Your task to perform on an android device: Open Youtube and go to the subscriptions tab Image 0: 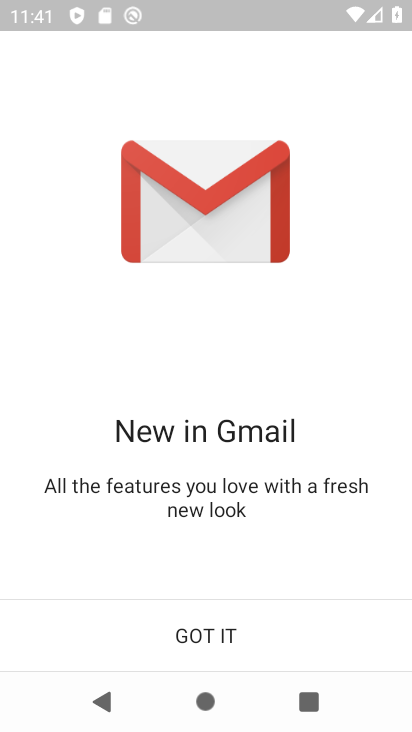
Step 0: press home button
Your task to perform on an android device: Open Youtube and go to the subscriptions tab Image 1: 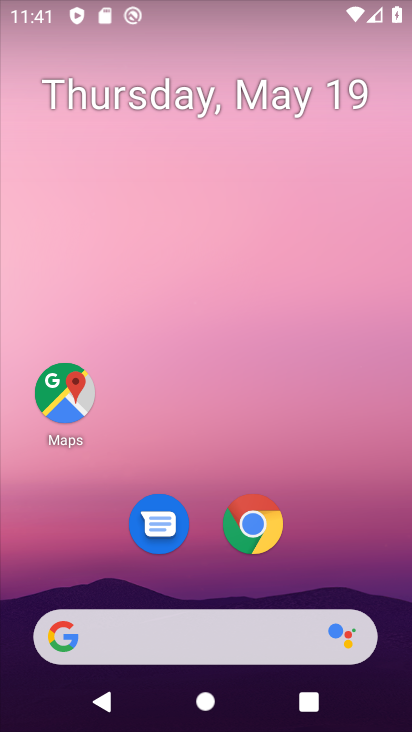
Step 1: drag from (229, 452) to (211, 11)
Your task to perform on an android device: Open Youtube and go to the subscriptions tab Image 2: 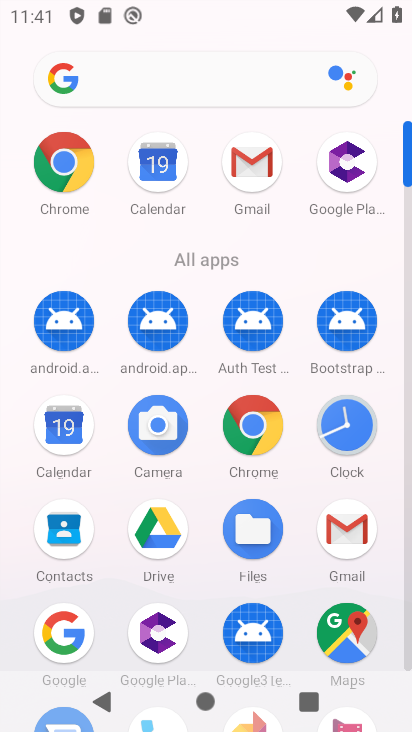
Step 2: drag from (208, 553) to (201, 253)
Your task to perform on an android device: Open Youtube and go to the subscriptions tab Image 3: 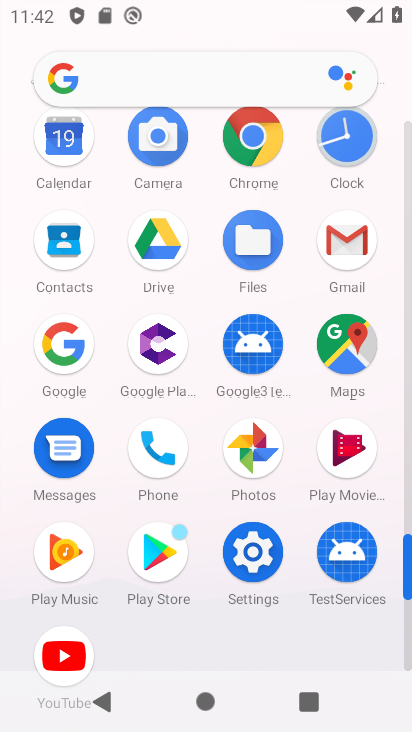
Step 3: click (64, 640)
Your task to perform on an android device: Open Youtube and go to the subscriptions tab Image 4: 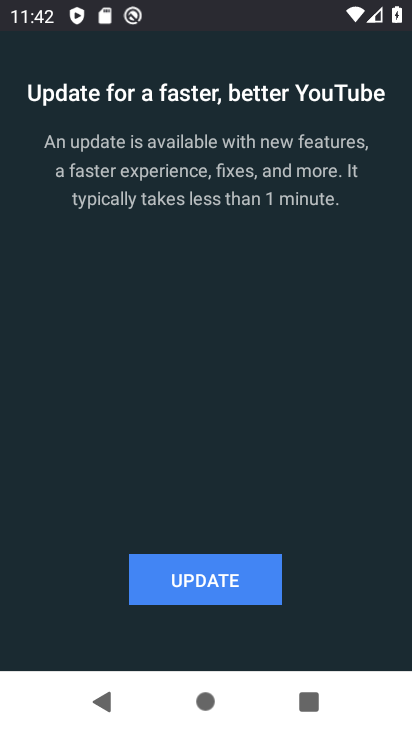
Step 4: click (200, 581)
Your task to perform on an android device: Open Youtube and go to the subscriptions tab Image 5: 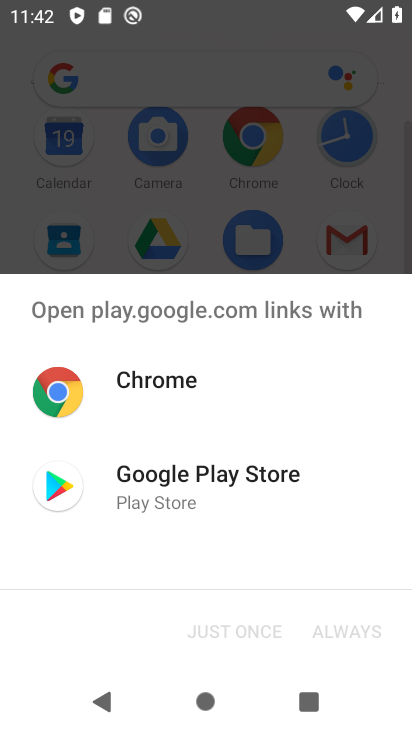
Step 5: click (144, 465)
Your task to perform on an android device: Open Youtube and go to the subscriptions tab Image 6: 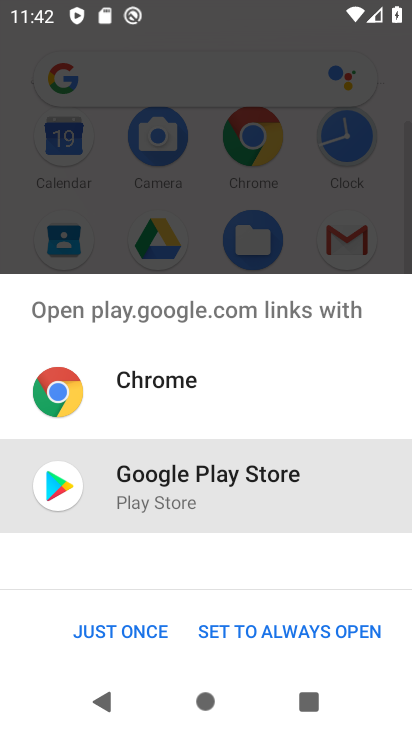
Step 6: click (131, 633)
Your task to perform on an android device: Open Youtube and go to the subscriptions tab Image 7: 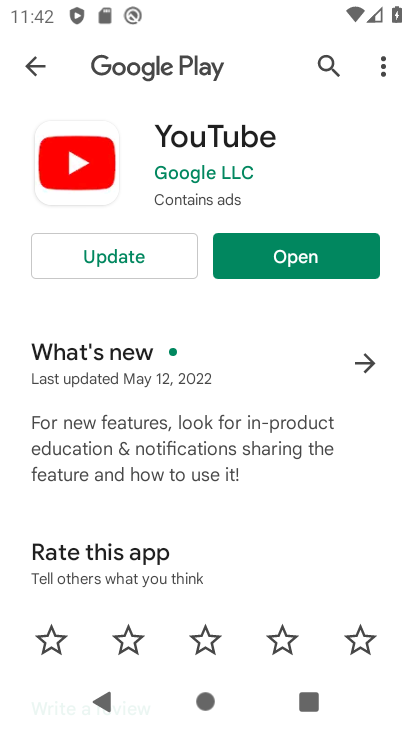
Step 7: click (131, 245)
Your task to perform on an android device: Open Youtube and go to the subscriptions tab Image 8: 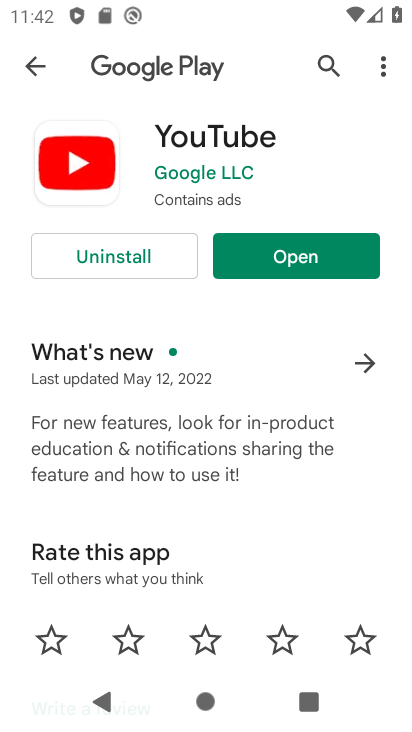
Step 8: click (308, 253)
Your task to perform on an android device: Open Youtube and go to the subscriptions tab Image 9: 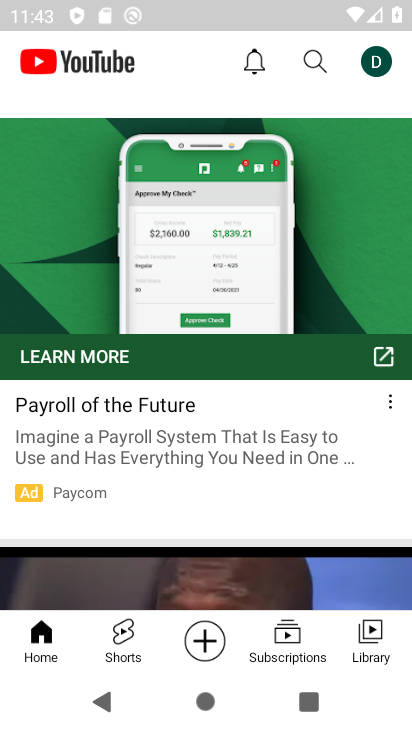
Step 9: click (299, 633)
Your task to perform on an android device: Open Youtube and go to the subscriptions tab Image 10: 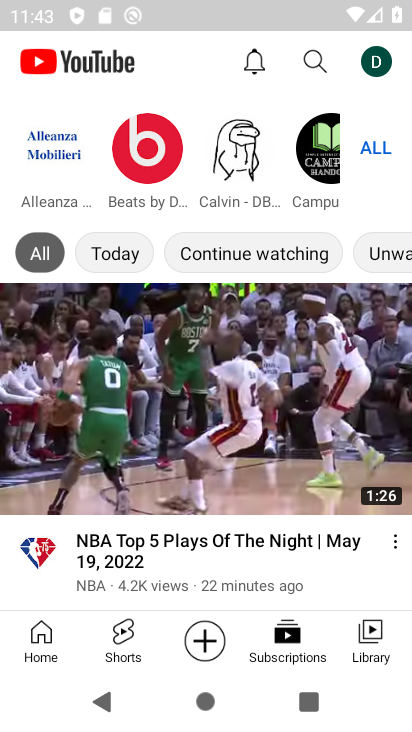
Step 10: task complete